Your task to perform on an android device: set an alarm Image 0: 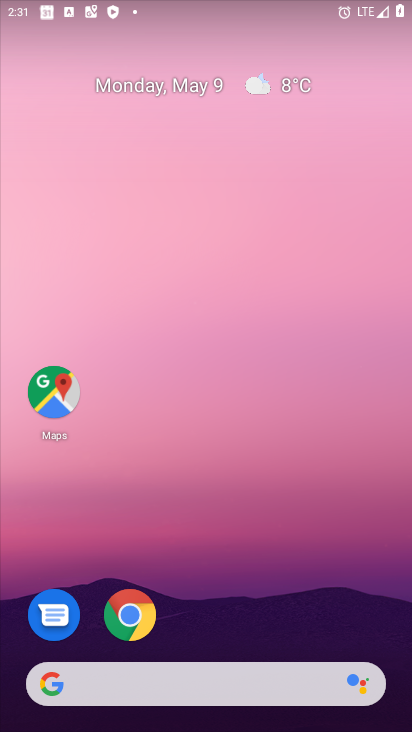
Step 0: drag from (326, 613) to (334, 55)
Your task to perform on an android device: set an alarm Image 1: 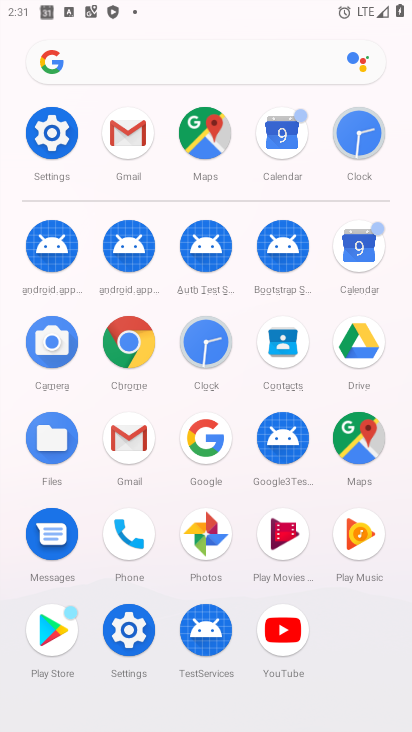
Step 1: click (207, 340)
Your task to perform on an android device: set an alarm Image 2: 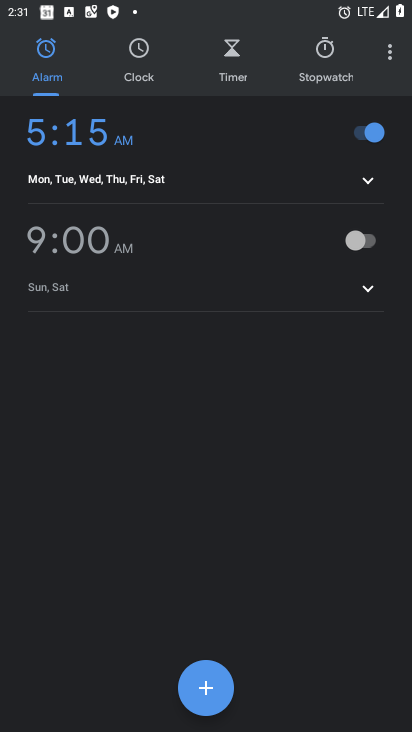
Step 2: click (61, 250)
Your task to perform on an android device: set an alarm Image 3: 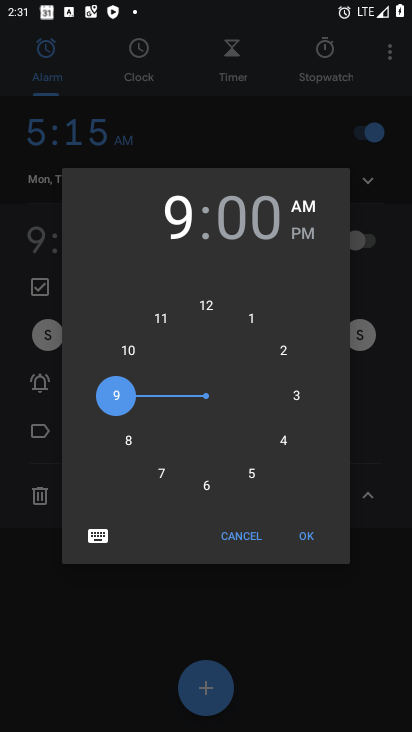
Step 3: click (163, 479)
Your task to perform on an android device: set an alarm Image 4: 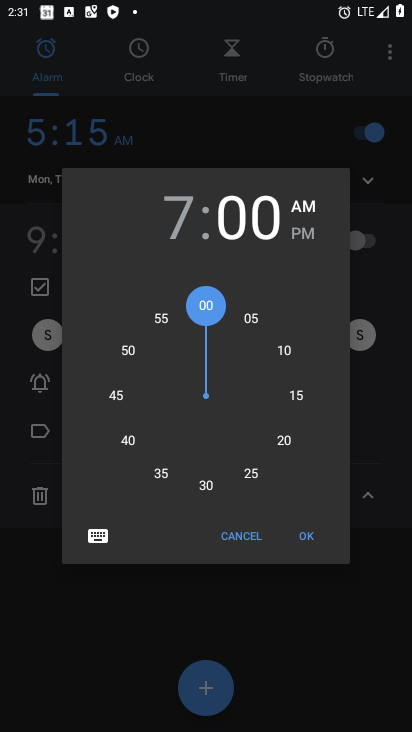
Step 4: click (205, 489)
Your task to perform on an android device: set an alarm Image 5: 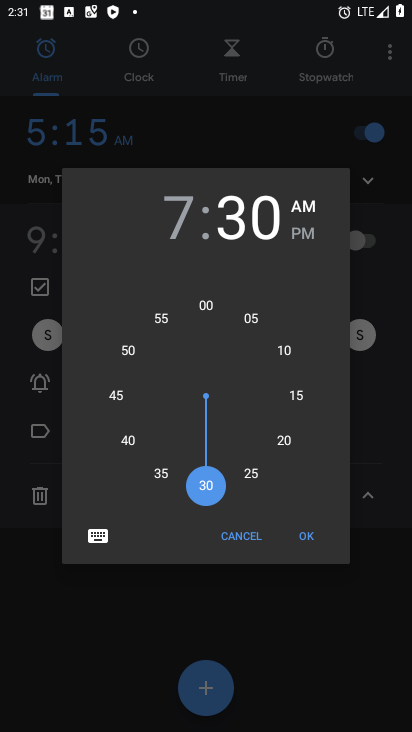
Step 5: click (301, 534)
Your task to perform on an android device: set an alarm Image 6: 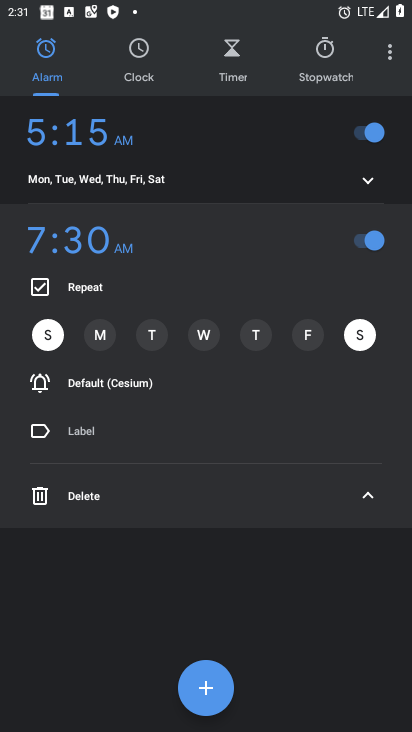
Step 6: click (105, 334)
Your task to perform on an android device: set an alarm Image 7: 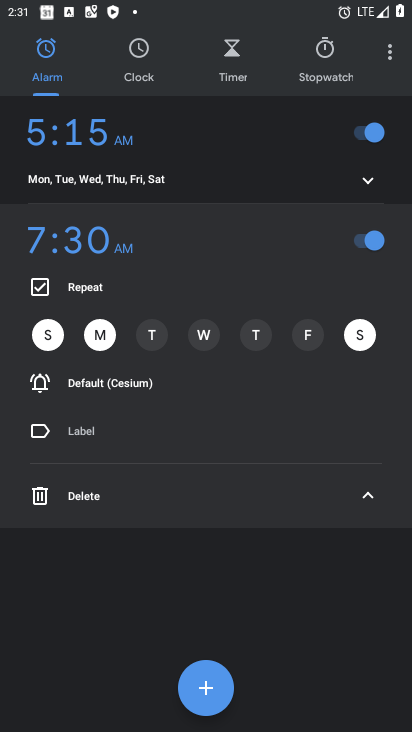
Step 7: click (155, 341)
Your task to perform on an android device: set an alarm Image 8: 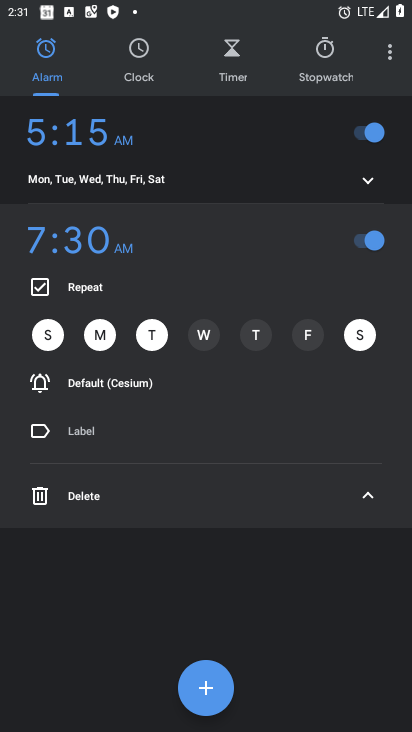
Step 8: click (201, 337)
Your task to perform on an android device: set an alarm Image 9: 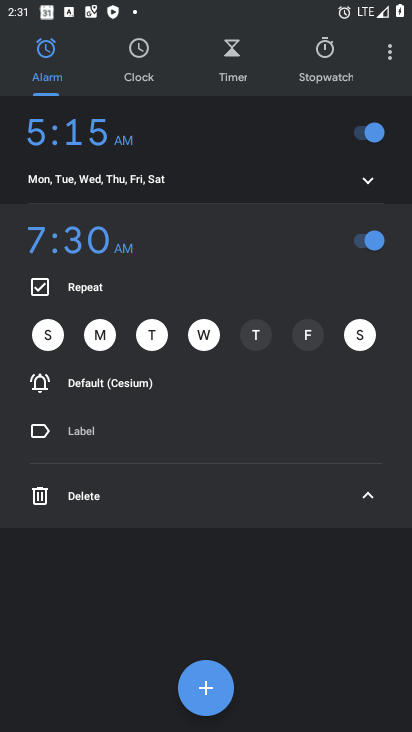
Step 9: click (264, 337)
Your task to perform on an android device: set an alarm Image 10: 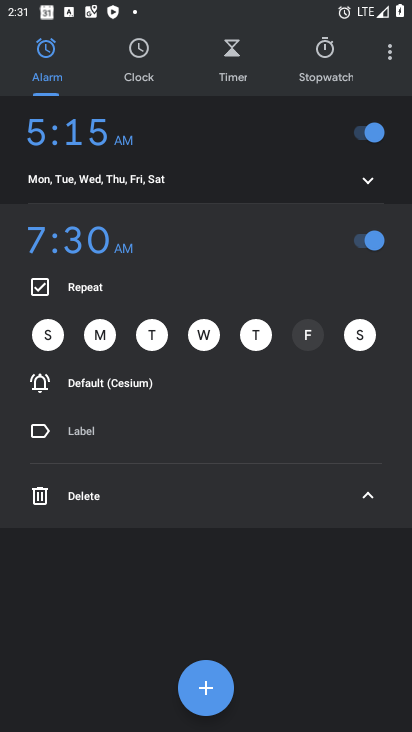
Step 10: click (327, 337)
Your task to perform on an android device: set an alarm Image 11: 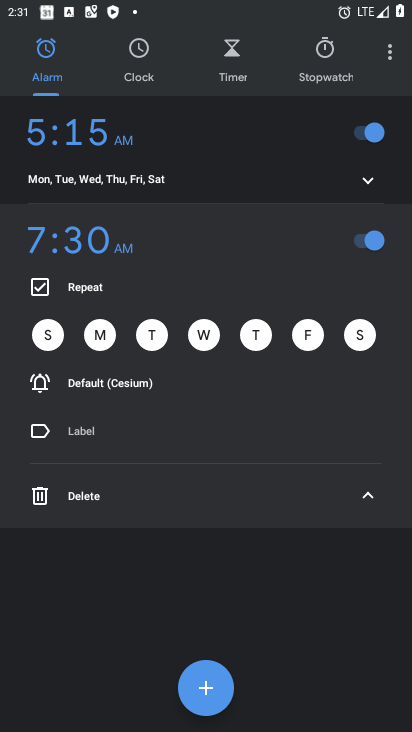
Step 11: click (42, 334)
Your task to perform on an android device: set an alarm Image 12: 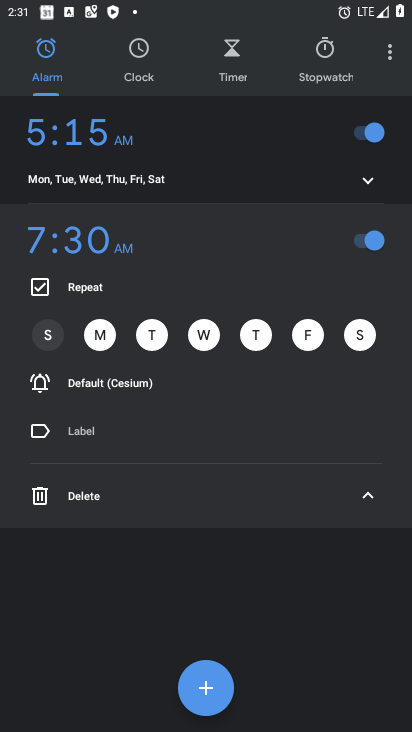
Step 12: click (367, 492)
Your task to perform on an android device: set an alarm Image 13: 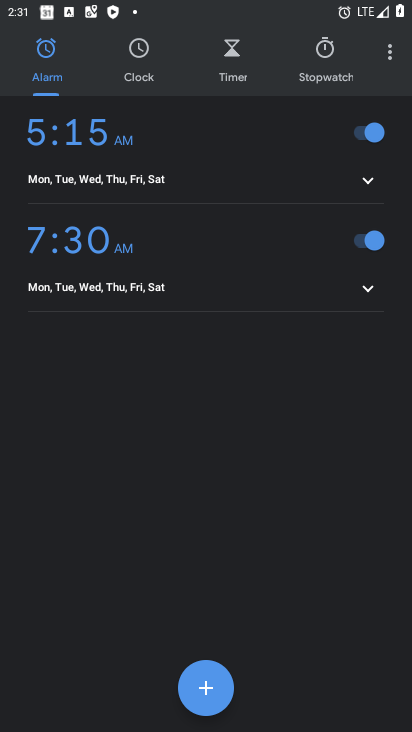
Step 13: task complete